Your task to perform on an android device: set default search engine in the chrome app Image 0: 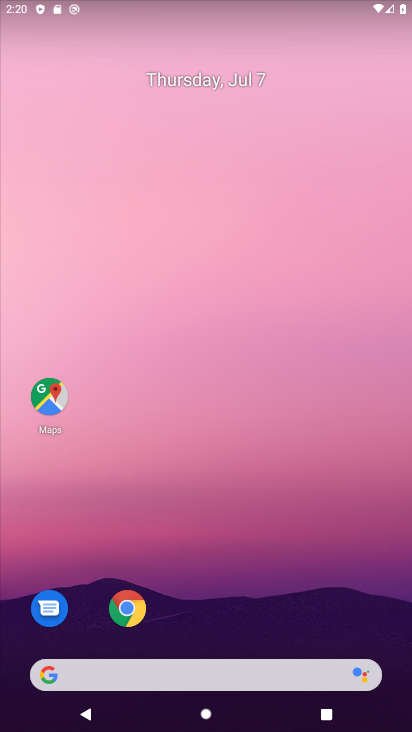
Step 0: click (133, 609)
Your task to perform on an android device: set default search engine in the chrome app Image 1: 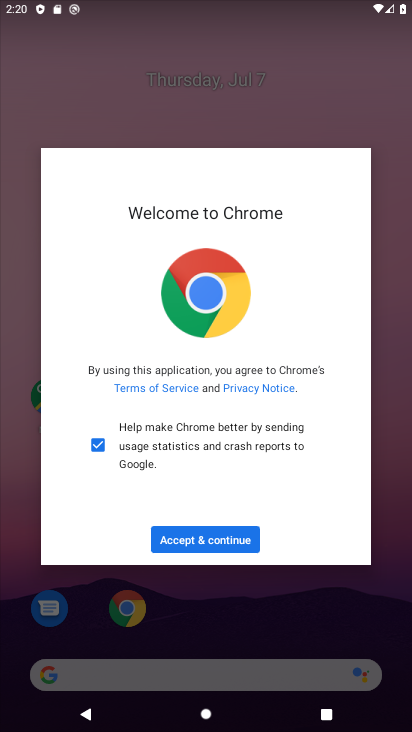
Step 1: click (220, 531)
Your task to perform on an android device: set default search engine in the chrome app Image 2: 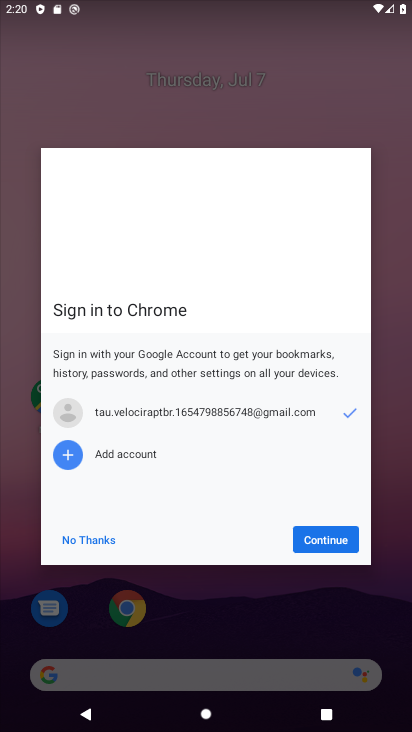
Step 2: click (330, 546)
Your task to perform on an android device: set default search engine in the chrome app Image 3: 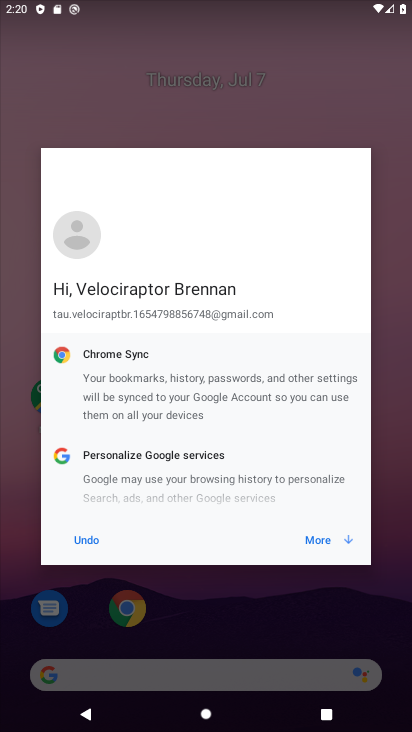
Step 3: click (321, 535)
Your task to perform on an android device: set default search engine in the chrome app Image 4: 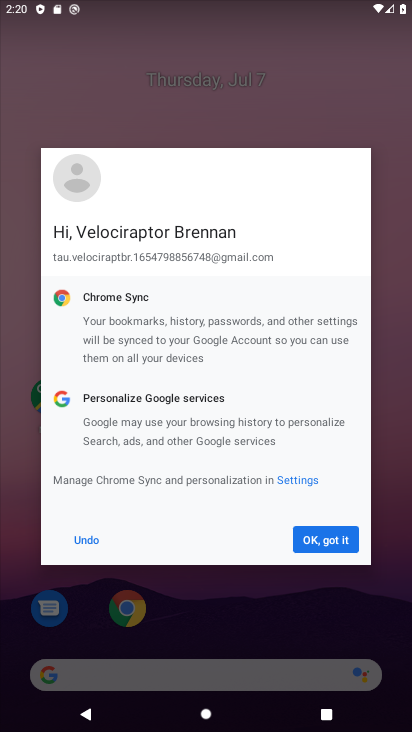
Step 4: click (321, 535)
Your task to perform on an android device: set default search engine in the chrome app Image 5: 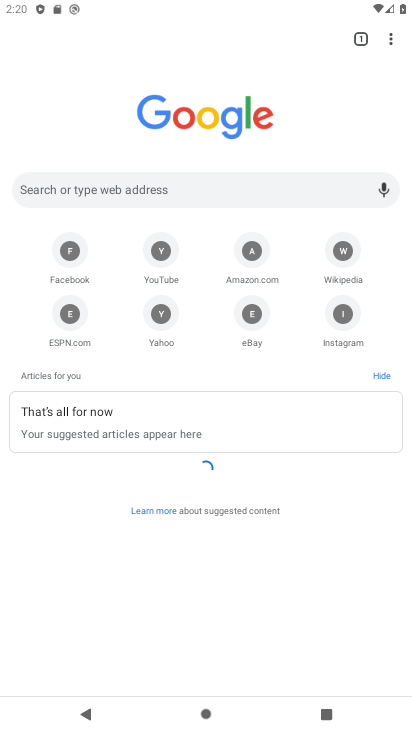
Step 5: click (383, 41)
Your task to perform on an android device: set default search engine in the chrome app Image 6: 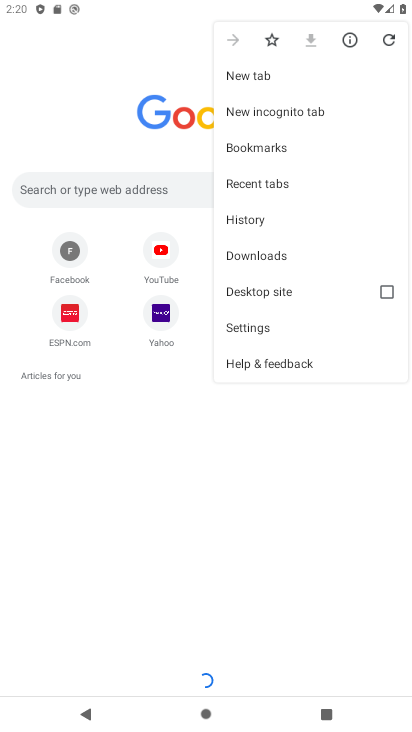
Step 6: click (247, 332)
Your task to perform on an android device: set default search engine in the chrome app Image 7: 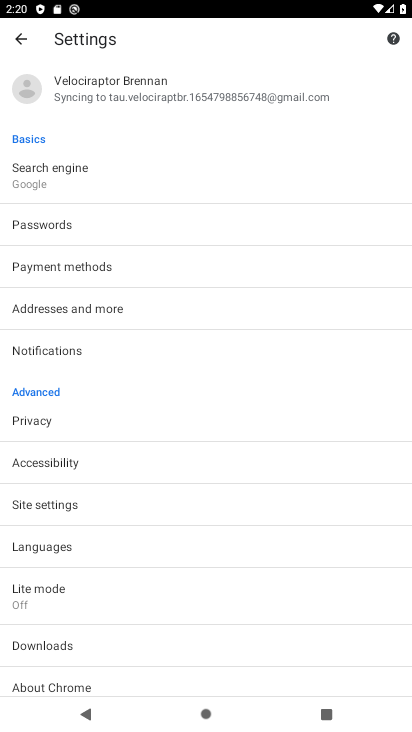
Step 7: click (73, 172)
Your task to perform on an android device: set default search engine in the chrome app Image 8: 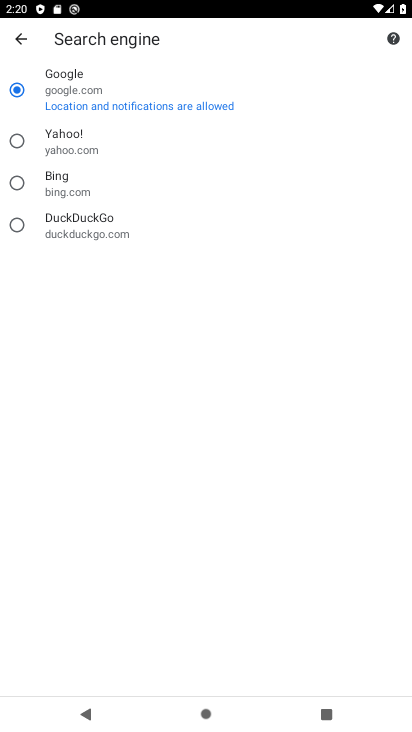
Step 8: click (18, 144)
Your task to perform on an android device: set default search engine in the chrome app Image 9: 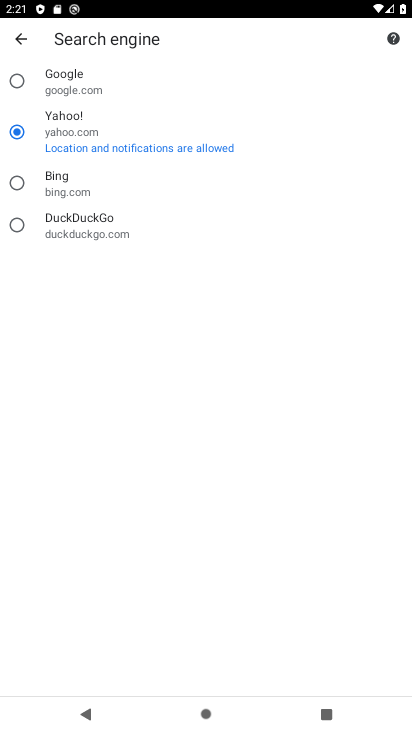
Step 9: task complete